Your task to perform on an android device: open app "Pinterest" Image 0: 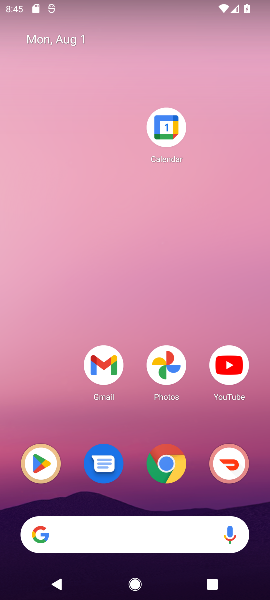
Step 0: click (51, 482)
Your task to perform on an android device: open app "Pinterest" Image 1: 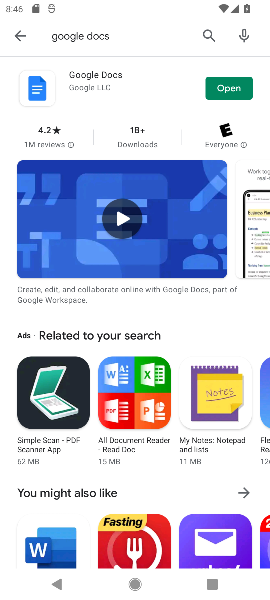
Step 1: press home button
Your task to perform on an android device: open app "Pinterest" Image 2: 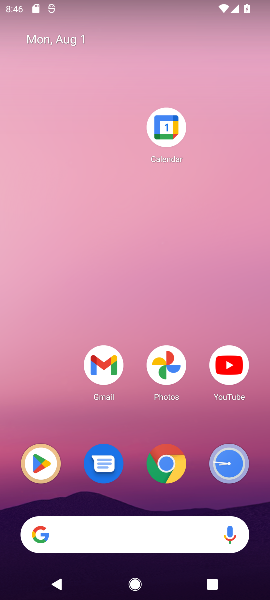
Step 2: click (32, 475)
Your task to perform on an android device: open app "Pinterest" Image 3: 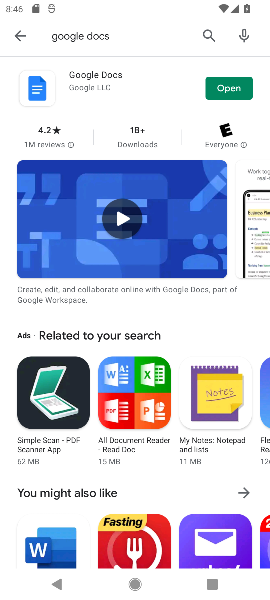
Step 3: click (219, 45)
Your task to perform on an android device: open app "Pinterest" Image 4: 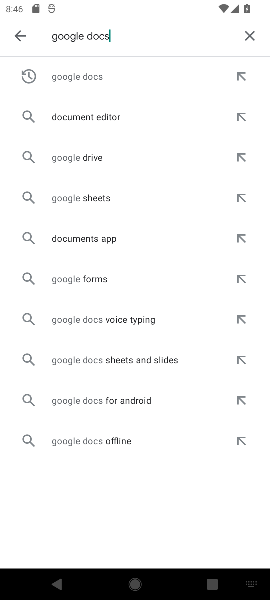
Step 4: click (250, 35)
Your task to perform on an android device: open app "Pinterest" Image 5: 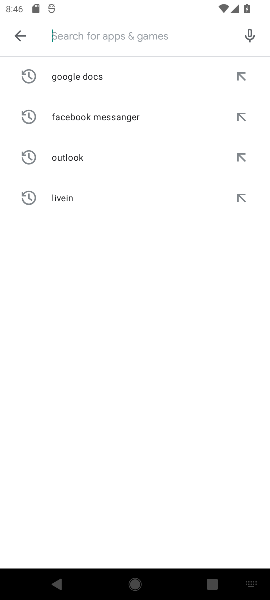
Step 5: type "pinterset"
Your task to perform on an android device: open app "Pinterest" Image 6: 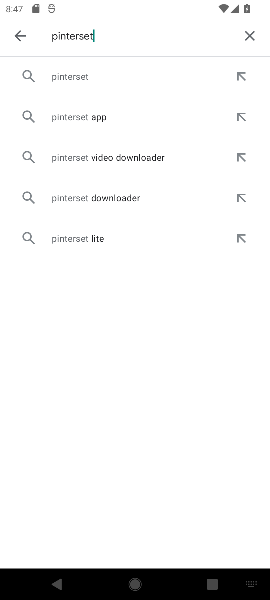
Step 6: click (140, 72)
Your task to perform on an android device: open app "Pinterest" Image 7: 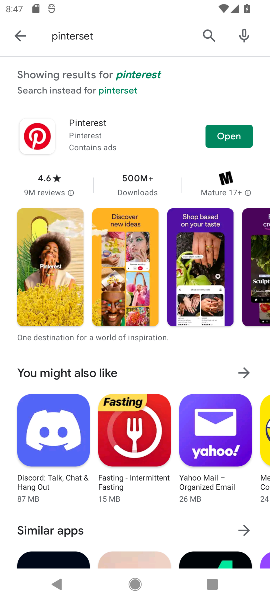
Step 7: click (242, 136)
Your task to perform on an android device: open app "Pinterest" Image 8: 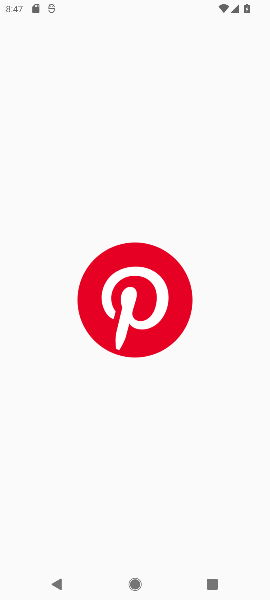
Step 8: task complete